Your task to perform on an android device: Go to Android settings Image 0: 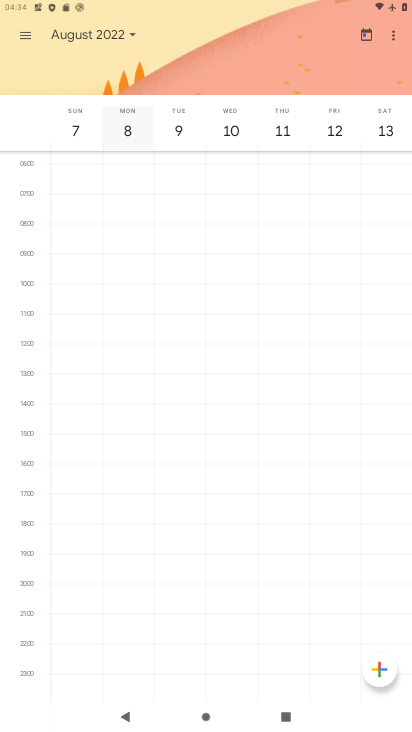
Step 0: press home button
Your task to perform on an android device: Go to Android settings Image 1: 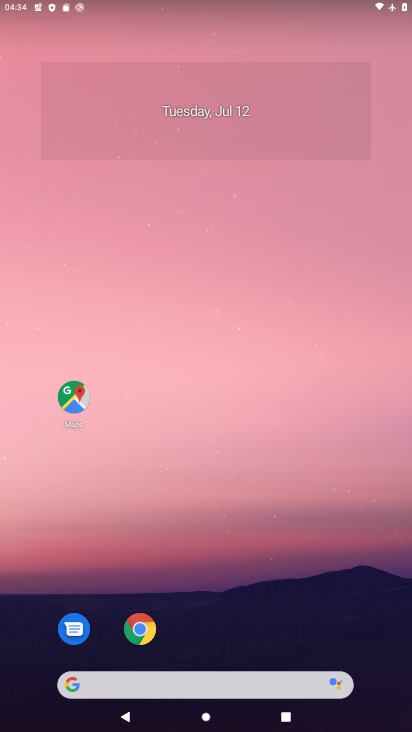
Step 1: drag from (316, 582) to (215, 67)
Your task to perform on an android device: Go to Android settings Image 2: 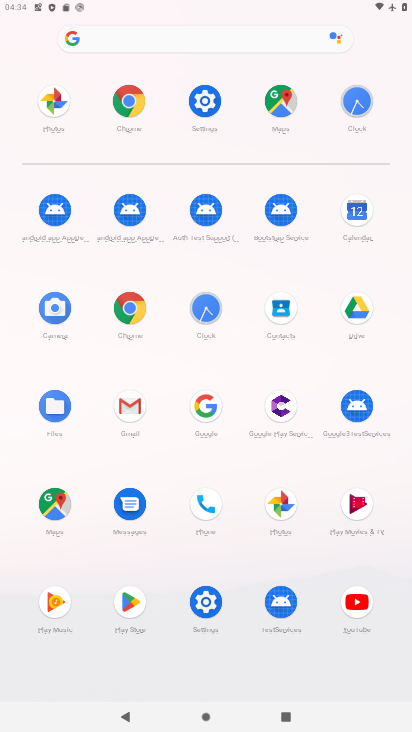
Step 2: click (214, 95)
Your task to perform on an android device: Go to Android settings Image 3: 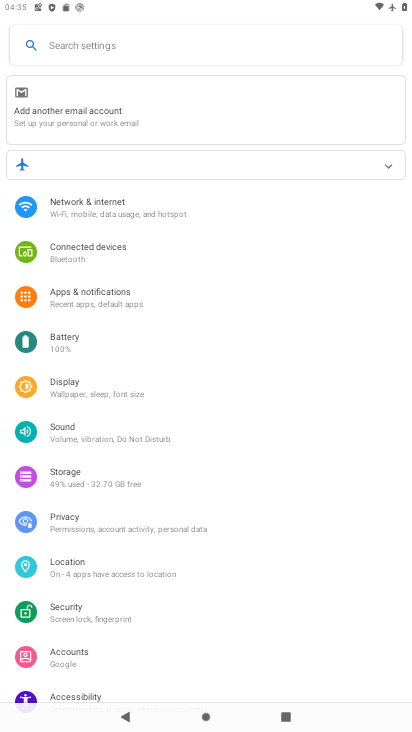
Step 3: task complete